Your task to perform on an android device: Add "apple airpods pro" to the cart on target.com Image 0: 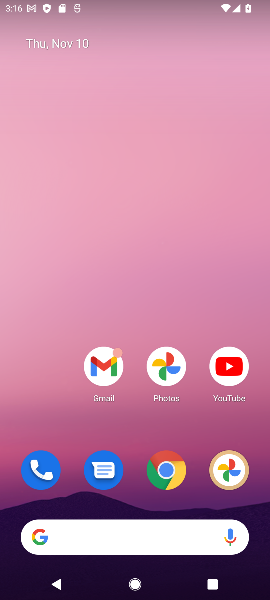
Step 0: click (162, 463)
Your task to perform on an android device: Add "apple airpods pro" to the cart on target.com Image 1: 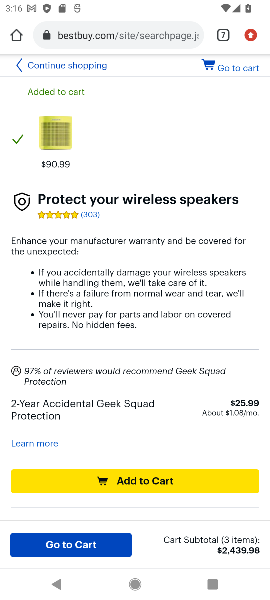
Step 1: click (224, 34)
Your task to perform on an android device: Add "apple airpods pro" to the cart on target.com Image 2: 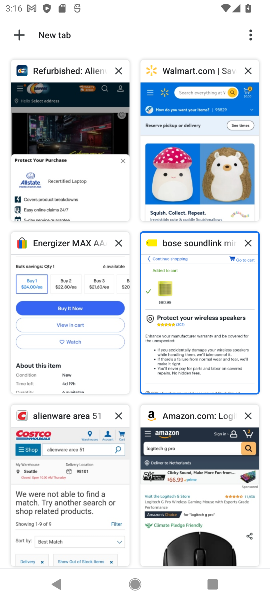
Step 2: drag from (161, 439) to (205, 97)
Your task to perform on an android device: Add "apple airpods pro" to the cart on target.com Image 3: 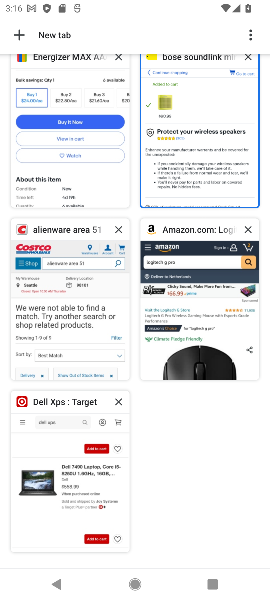
Step 3: click (79, 443)
Your task to perform on an android device: Add "apple airpods pro" to the cart on target.com Image 4: 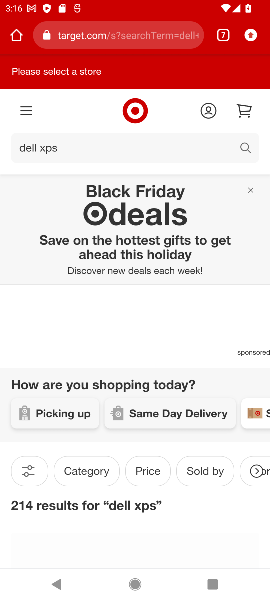
Step 4: click (62, 152)
Your task to perform on an android device: Add "apple airpods pro" to the cart on target.com Image 5: 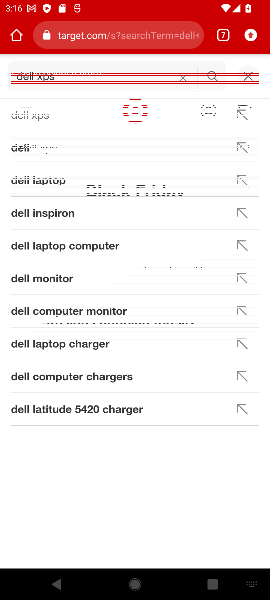
Step 5: click (185, 80)
Your task to perform on an android device: Add "apple airpods pro" to the cart on target.com Image 6: 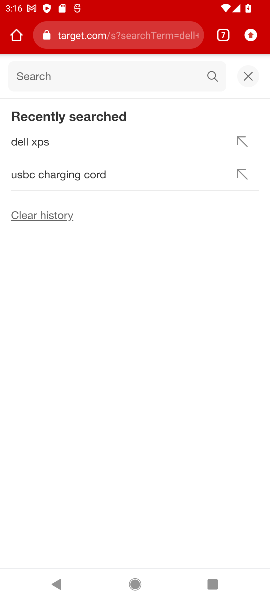
Step 6: click (36, 74)
Your task to perform on an android device: Add "apple airpods pro" to the cart on target.com Image 7: 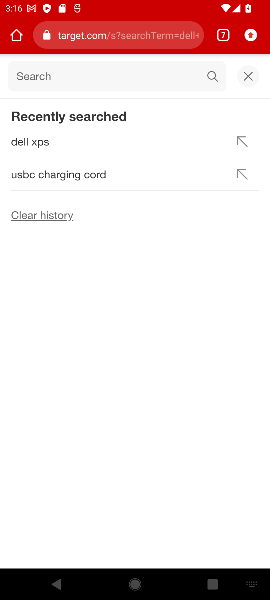
Step 7: type "apple airpods pro"
Your task to perform on an android device: Add "apple airpods pro" to the cart on target.com Image 8: 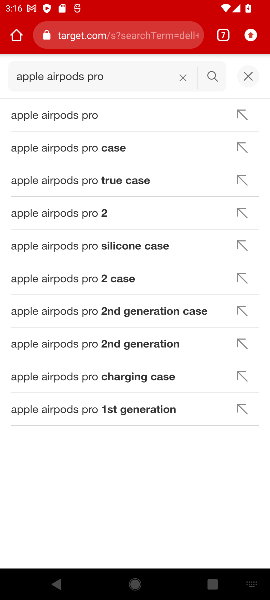
Step 8: click (87, 117)
Your task to perform on an android device: Add "apple airpods pro" to the cart on target.com Image 9: 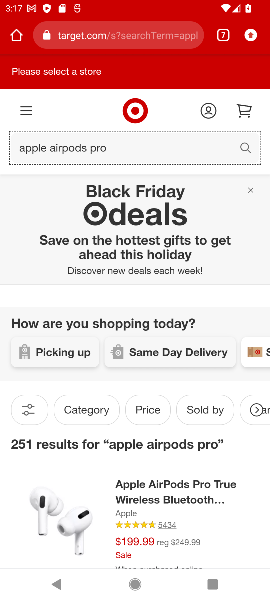
Step 9: drag from (187, 521) to (211, 269)
Your task to perform on an android device: Add "apple airpods pro" to the cart on target.com Image 10: 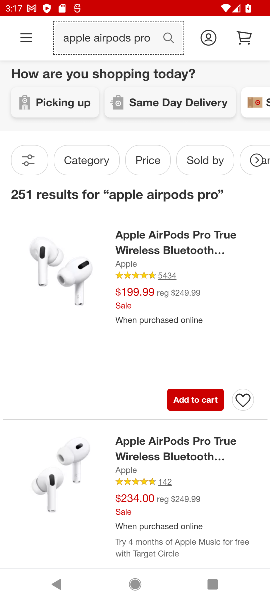
Step 10: click (205, 396)
Your task to perform on an android device: Add "apple airpods pro" to the cart on target.com Image 11: 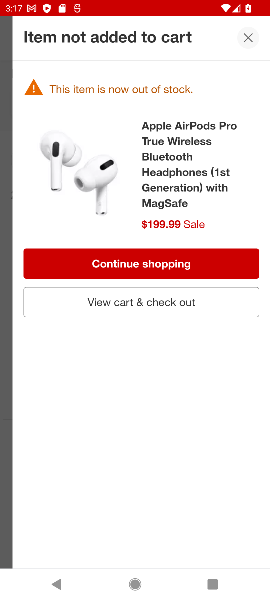
Step 11: task complete